Your task to perform on an android device: see creations saved in the google photos Image 0: 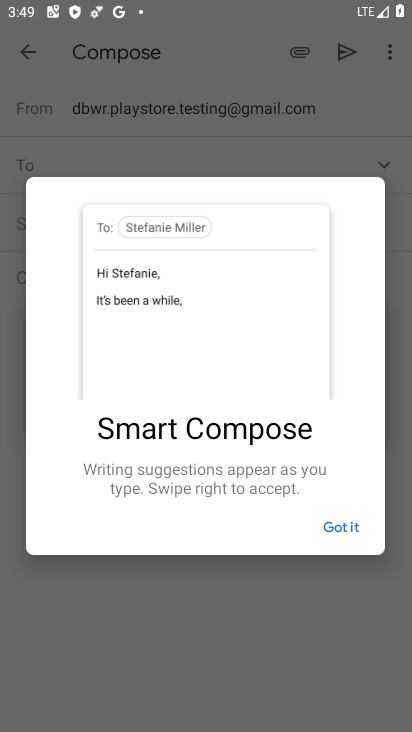
Step 0: press home button
Your task to perform on an android device: see creations saved in the google photos Image 1: 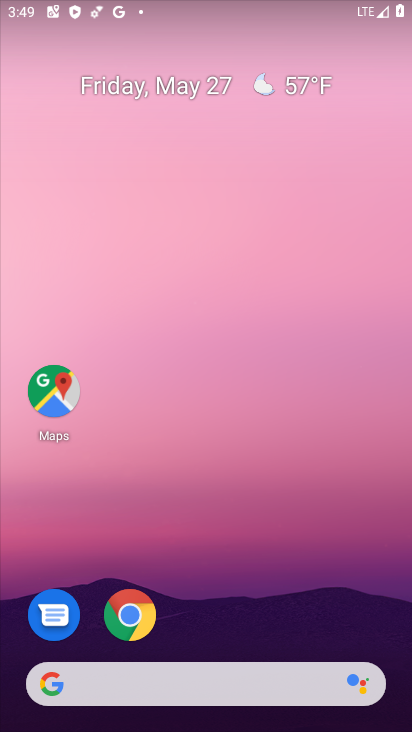
Step 1: drag from (253, 561) to (268, 92)
Your task to perform on an android device: see creations saved in the google photos Image 2: 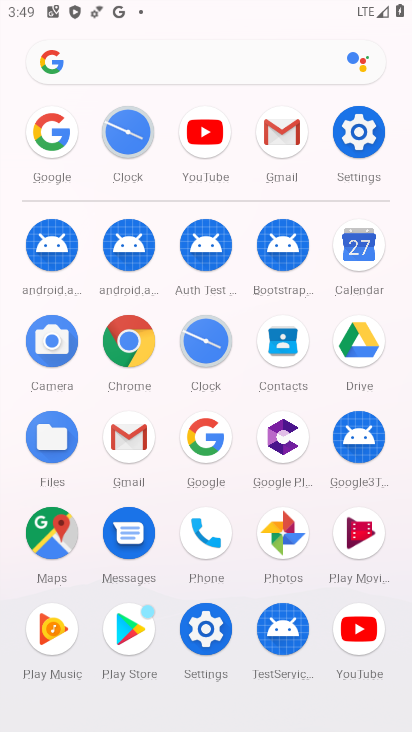
Step 2: click (280, 533)
Your task to perform on an android device: see creations saved in the google photos Image 3: 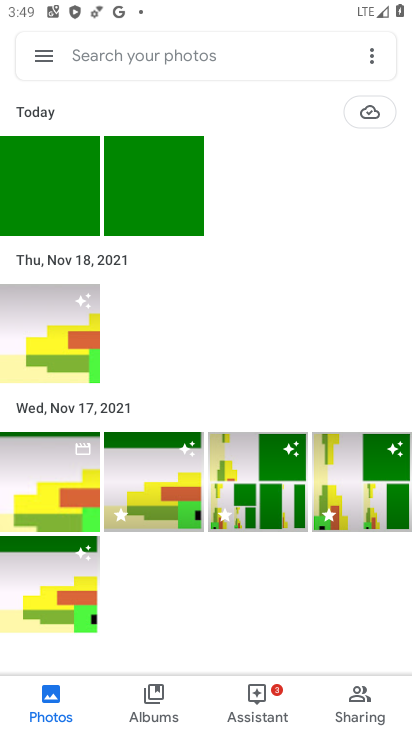
Step 3: click (124, 45)
Your task to perform on an android device: see creations saved in the google photos Image 4: 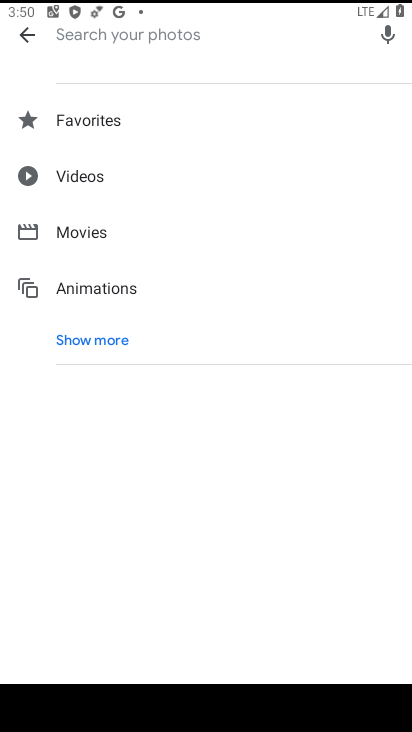
Step 4: click (96, 346)
Your task to perform on an android device: see creations saved in the google photos Image 5: 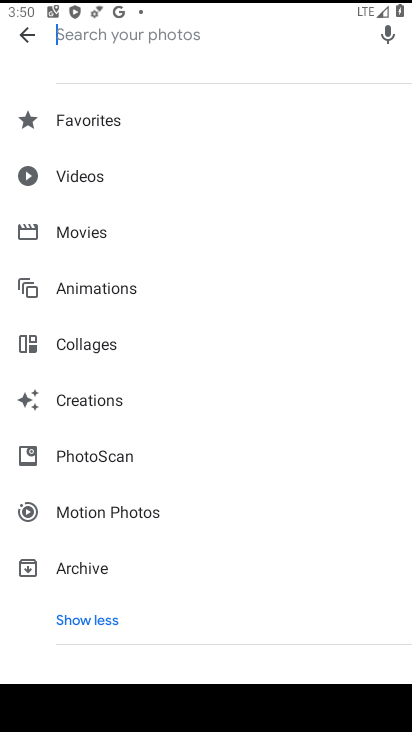
Step 5: click (95, 400)
Your task to perform on an android device: see creations saved in the google photos Image 6: 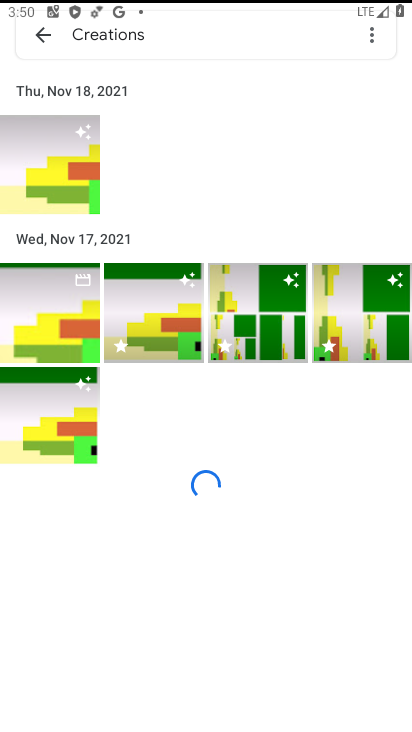
Step 6: task complete